Your task to perform on an android device: Go to Yahoo.com Image 0: 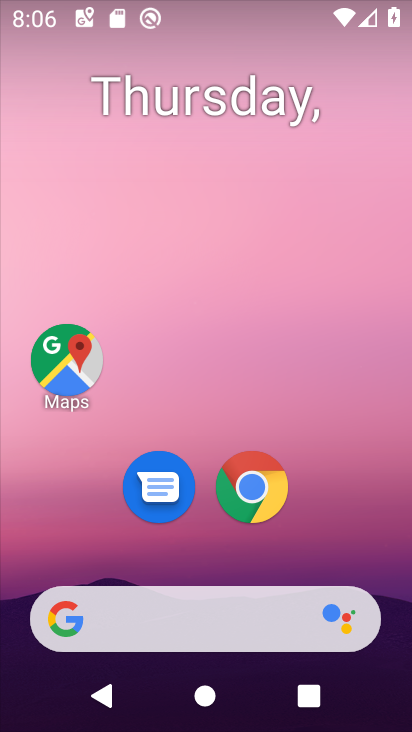
Step 0: click (248, 482)
Your task to perform on an android device: Go to Yahoo.com Image 1: 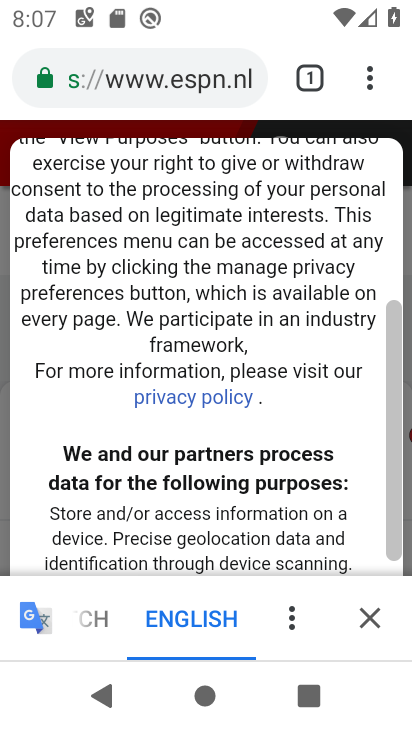
Step 1: click (307, 72)
Your task to perform on an android device: Go to Yahoo.com Image 2: 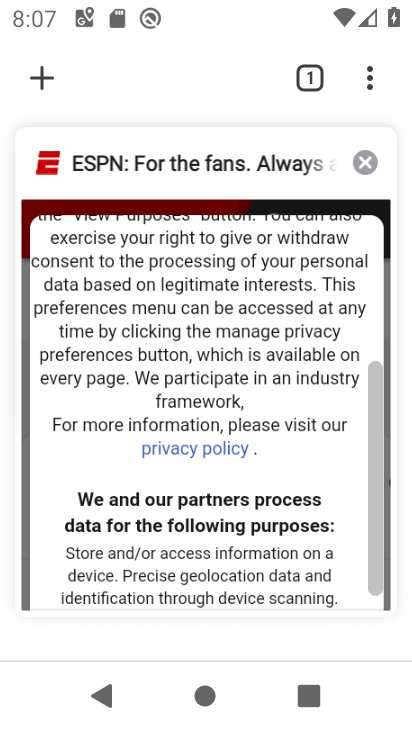
Step 2: click (40, 72)
Your task to perform on an android device: Go to Yahoo.com Image 3: 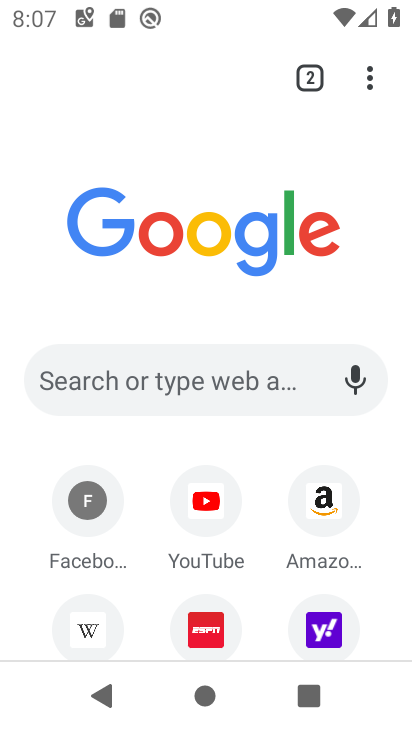
Step 3: click (337, 627)
Your task to perform on an android device: Go to Yahoo.com Image 4: 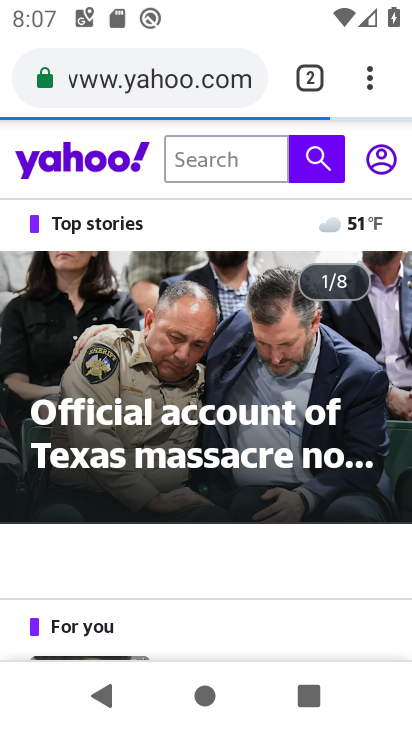
Step 4: task complete